Your task to perform on an android device: turn off location Image 0: 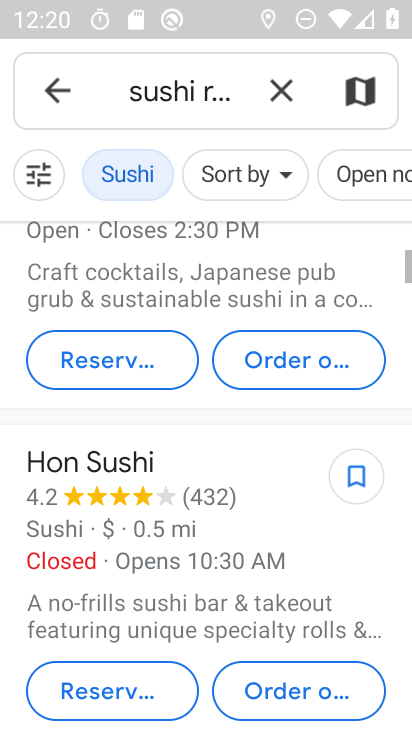
Step 0: press home button
Your task to perform on an android device: turn off location Image 1: 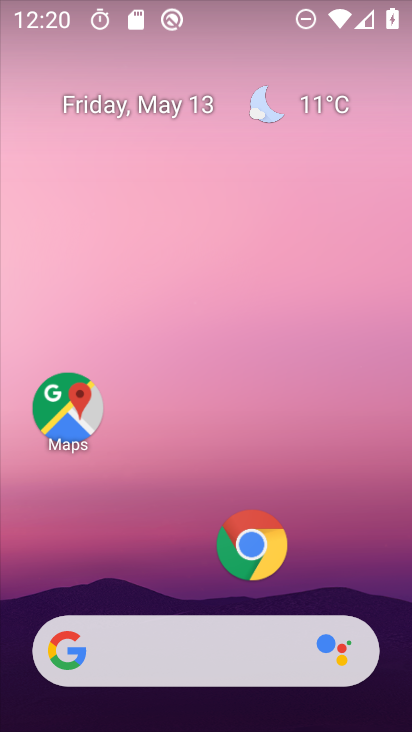
Step 1: drag from (188, 591) to (191, 63)
Your task to perform on an android device: turn off location Image 2: 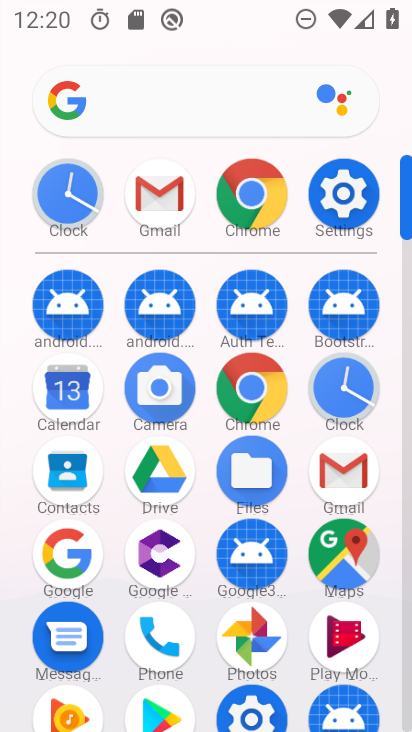
Step 2: click (353, 189)
Your task to perform on an android device: turn off location Image 3: 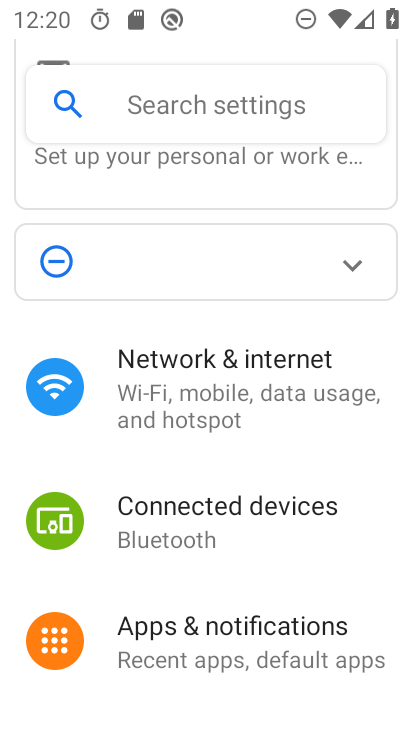
Step 3: drag from (231, 672) to (243, 31)
Your task to perform on an android device: turn off location Image 4: 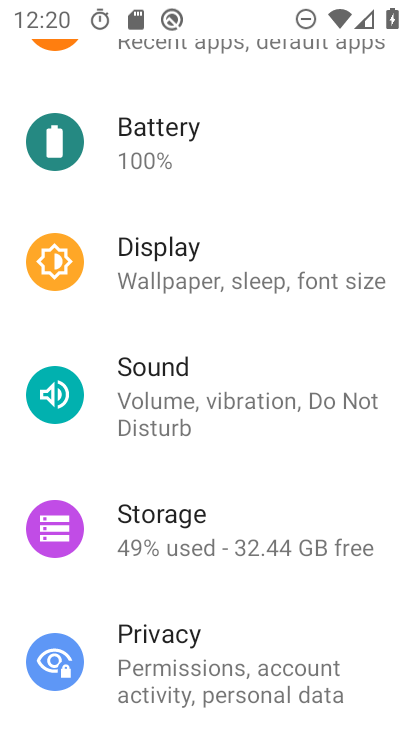
Step 4: drag from (220, 641) to (236, 214)
Your task to perform on an android device: turn off location Image 5: 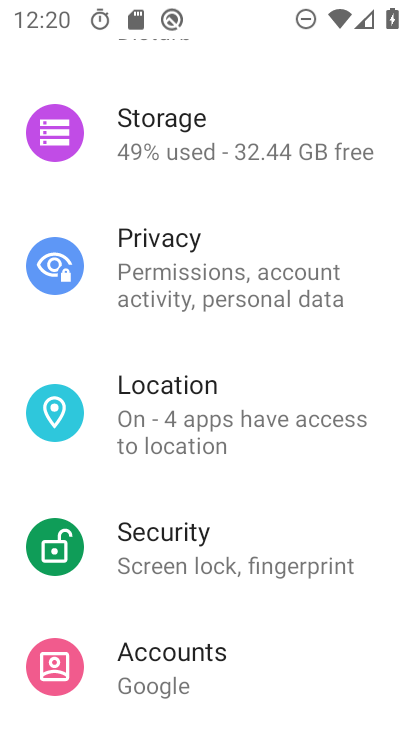
Step 5: click (230, 403)
Your task to perform on an android device: turn off location Image 6: 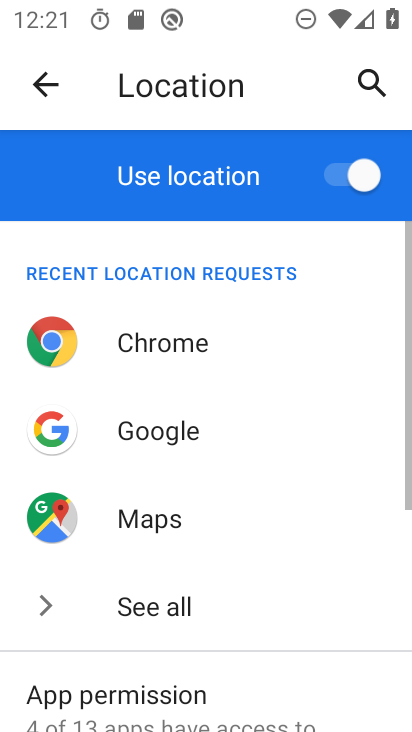
Step 6: click (338, 172)
Your task to perform on an android device: turn off location Image 7: 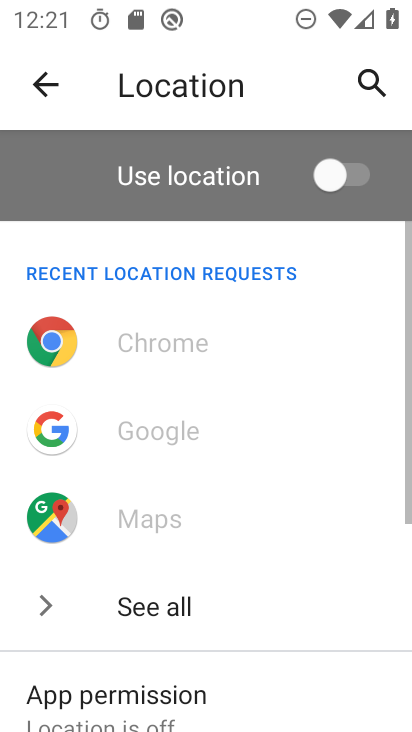
Step 7: task complete